Your task to perform on an android device: Do I have any events today? Image 0: 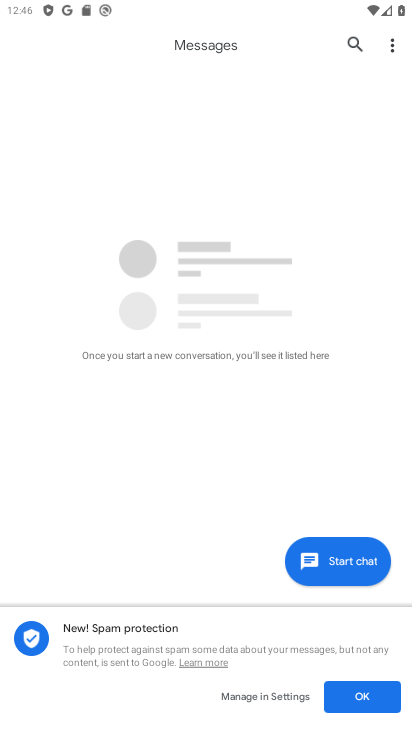
Step 0: press home button
Your task to perform on an android device: Do I have any events today? Image 1: 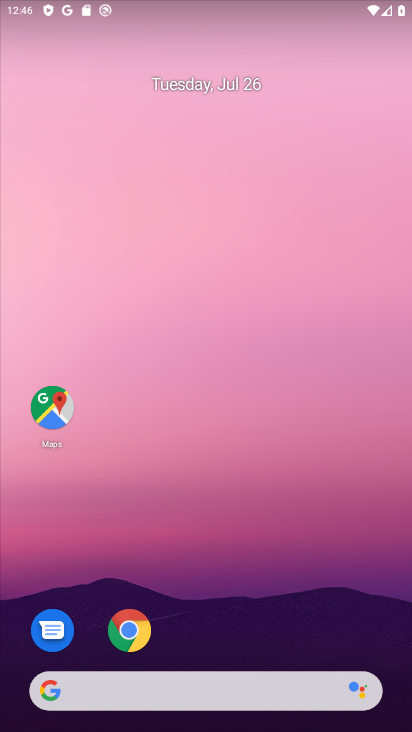
Step 1: drag from (209, 616) to (179, 104)
Your task to perform on an android device: Do I have any events today? Image 2: 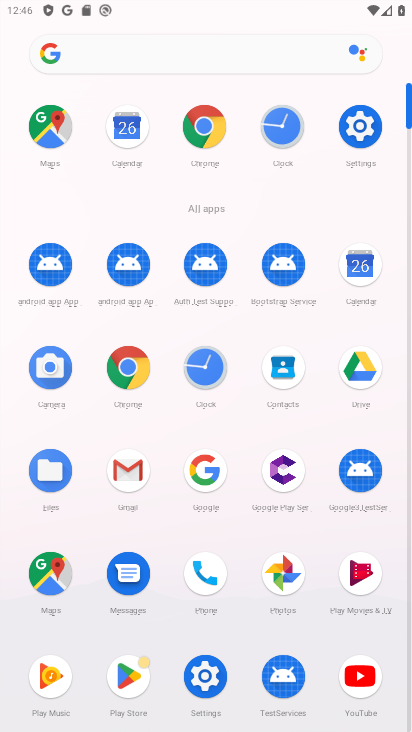
Step 2: click (362, 272)
Your task to perform on an android device: Do I have any events today? Image 3: 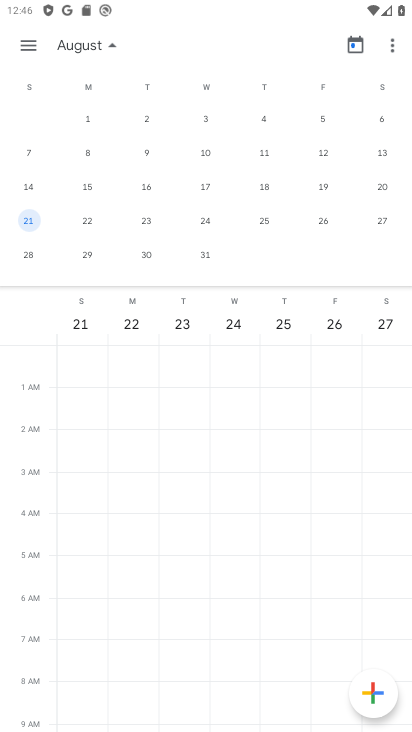
Step 3: click (80, 51)
Your task to perform on an android device: Do I have any events today? Image 4: 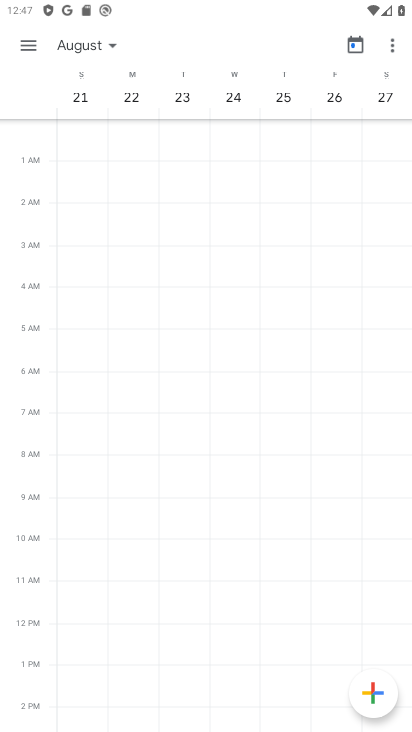
Step 4: click (80, 51)
Your task to perform on an android device: Do I have any events today? Image 5: 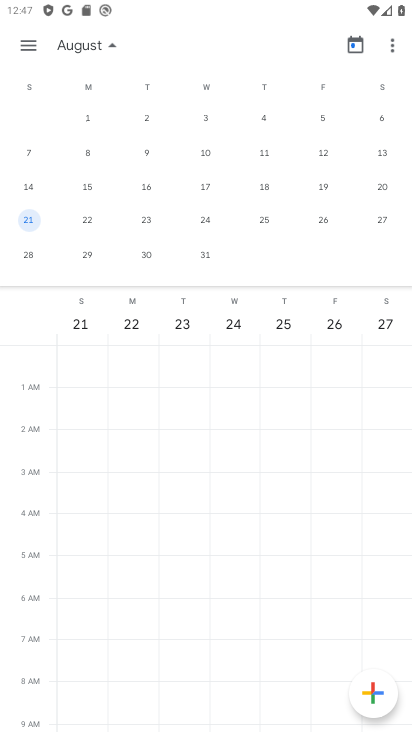
Step 5: drag from (129, 160) to (385, 217)
Your task to perform on an android device: Do I have any events today? Image 6: 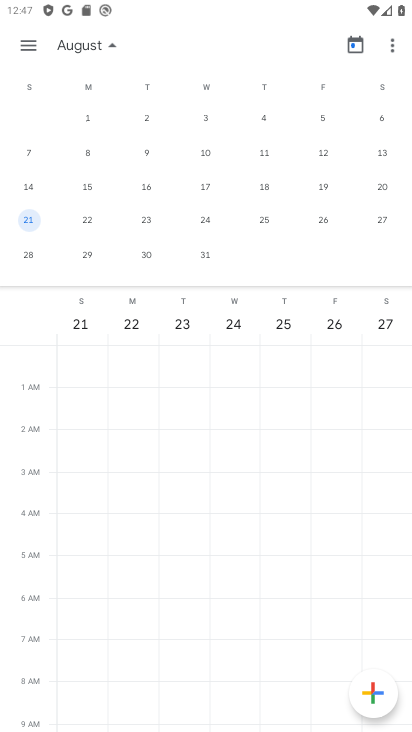
Step 6: drag from (74, 183) to (383, 136)
Your task to perform on an android device: Do I have any events today? Image 7: 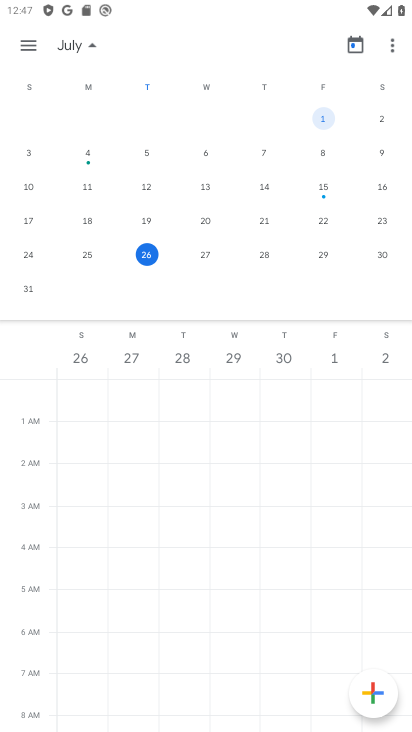
Step 7: click (149, 254)
Your task to perform on an android device: Do I have any events today? Image 8: 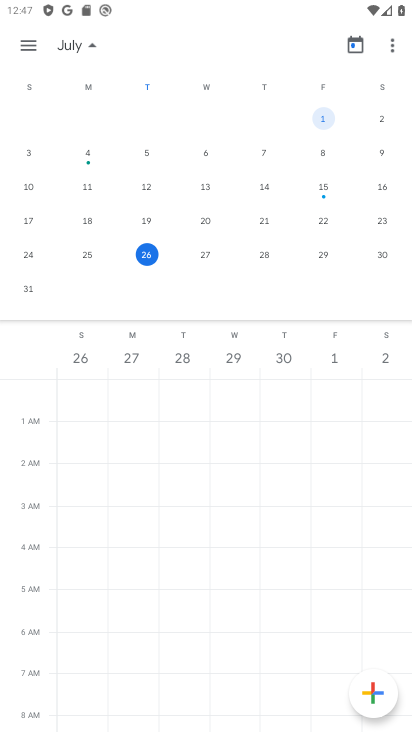
Step 8: click (149, 254)
Your task to perform on an android device: Do I have any events today? Image 9: 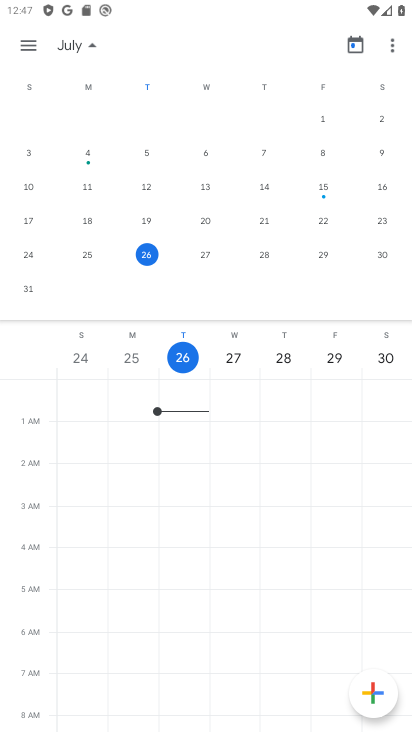
Step 9: task complete